Your task to perform on an android device: Go to Android settings Image 0: 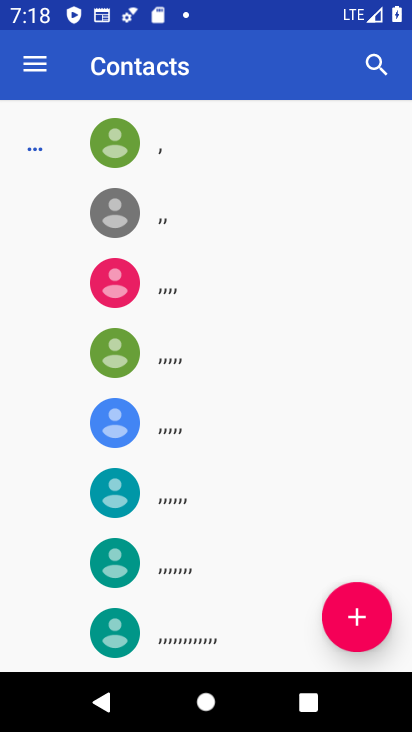
Step 0: press home button
Your task to perform on an android device: Go to Android settings Image 1: 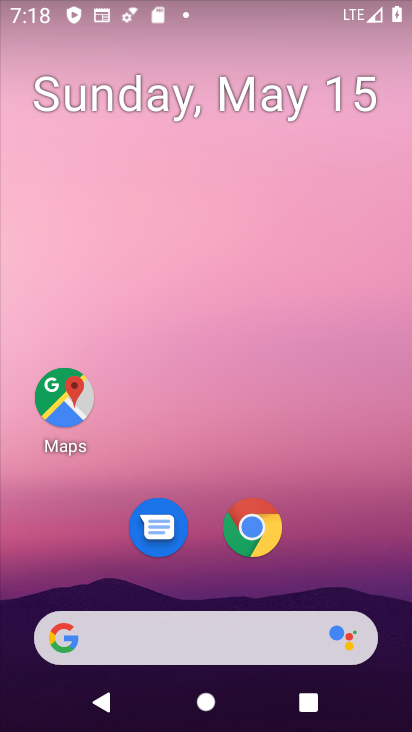
Step 1: drag from (365, 554) to (346, 59)
Your task to perform on an android device: Go to Android settings Image 2: 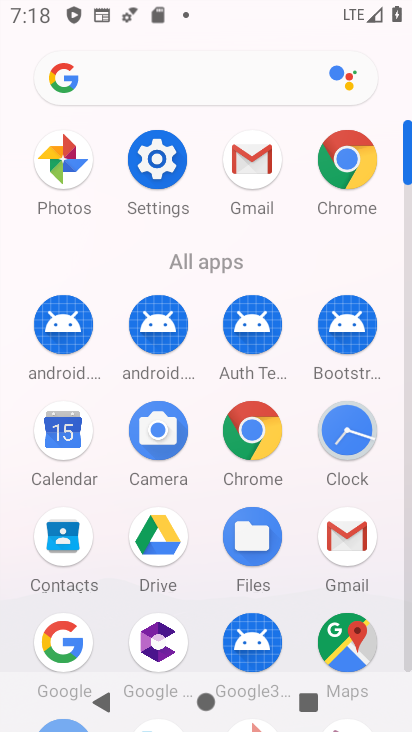
Step 2: click (166, 162)
Your task to perform on an android device: Go to Android settings Image 3: 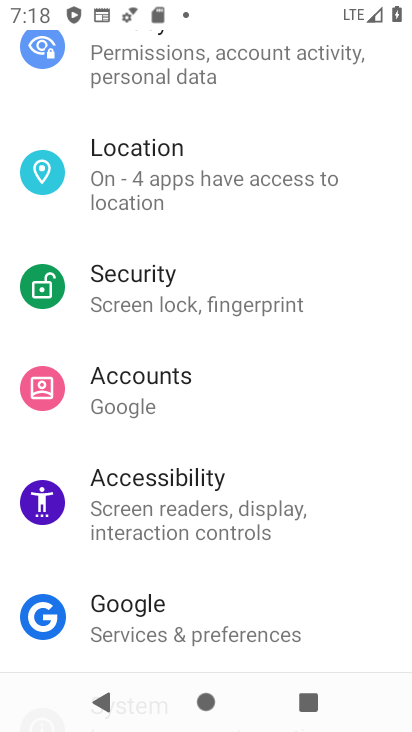
Step 3: task complete